Your task to perform on an android device: make emails show in primary in the gmail app Image 0: 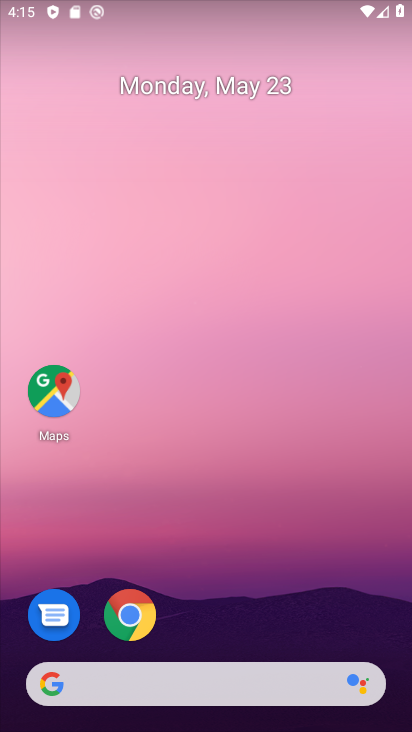
Step 0: drag from (318, 566) to (249, 92)
Your task to perform on an android device: make emails show in primary in the gmail app Image 1: 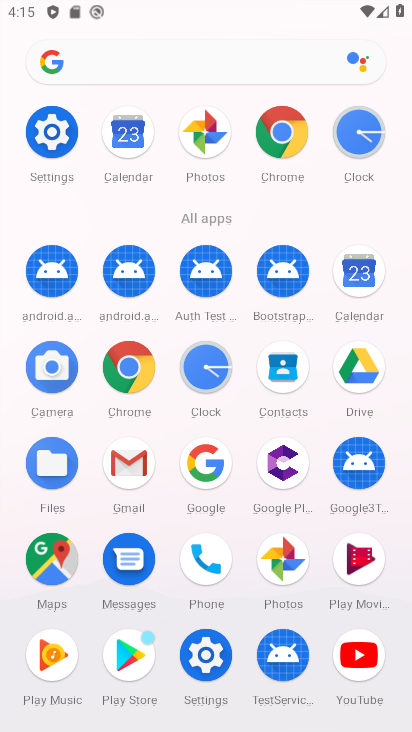
Step 1: click (139, 462)
Your task to perform on an android device: make emails show in primary in the gmail app Image 2: 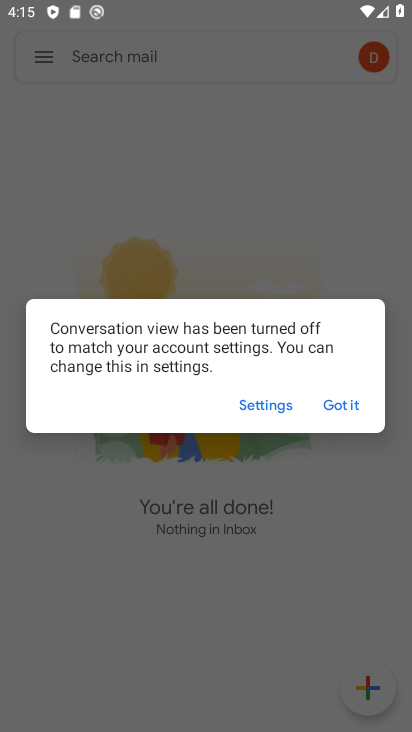
Step 2: click (349, 401)
Your task to perform on an android device: make emails show in primary in the gmail app Image 3: 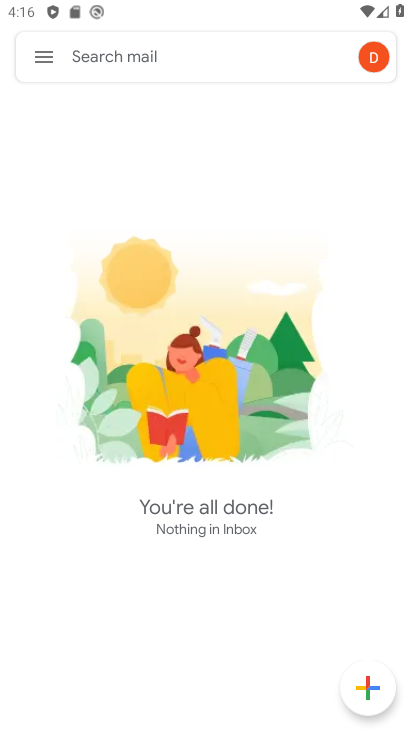
Step 3: click (44, 54)
Your task to perform on an android device: make emails show in primary in the gmail app Image 4: 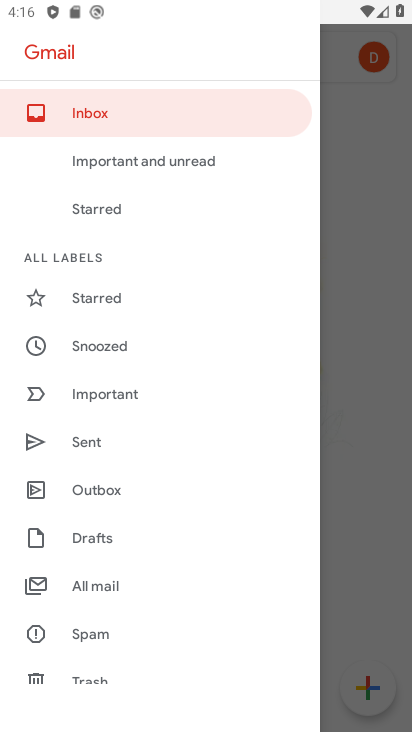
Step 4: drag from (98, 557) to (138, 217)
Your task to perform on an android device: make emails show in primary in the gmail app Image 5: 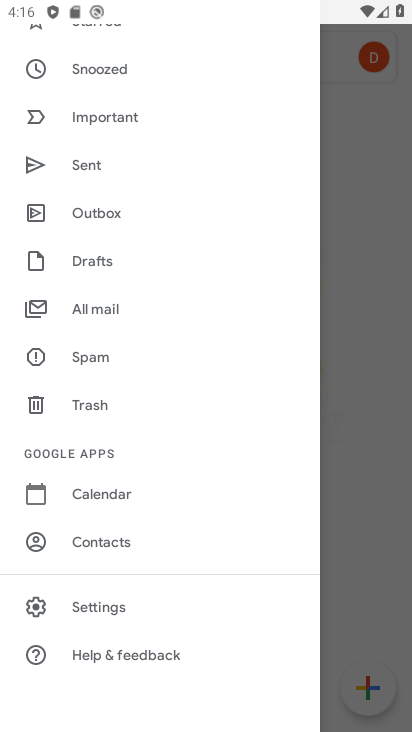
Step 5: click (101, 592)
Your task to perform on an android device: make emails show in primary in the gmail app Image 6: 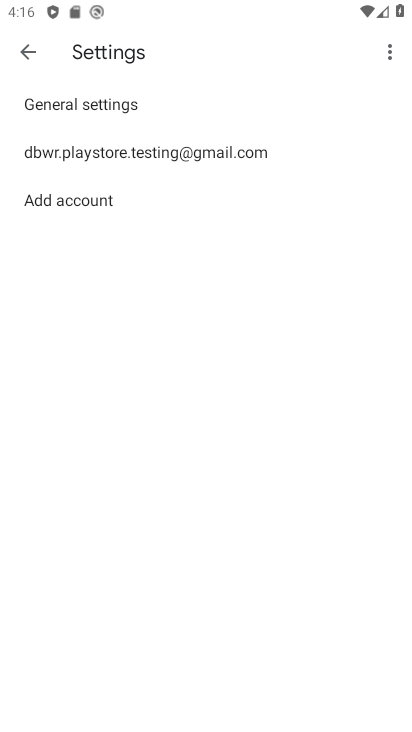
Step 6: click (212, 148)
Your task to perform on an android device: make emails show in primary in the gmail app Image 7: 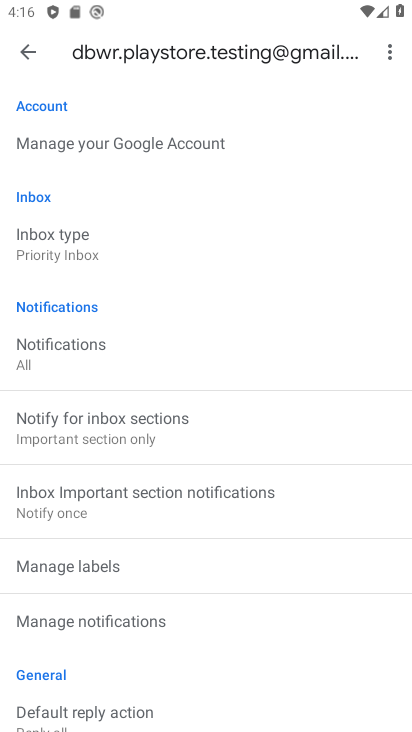
Step 7: click (59, 239)
Your task to perform on an android device: make emails show in primary in the gmail app Image 8: 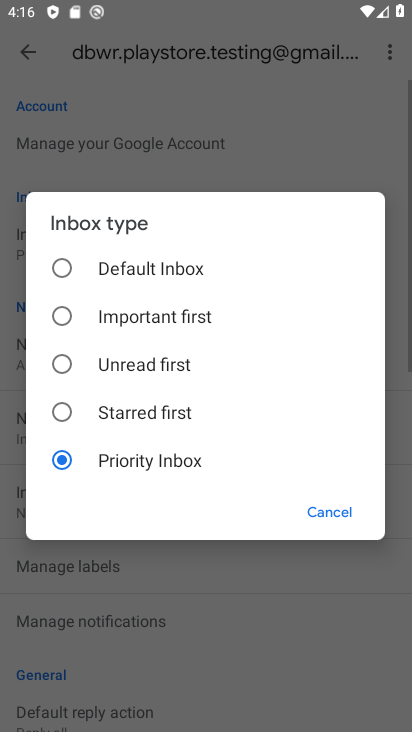
Step 8: click (59, 257)
Your task to perform on an android device: make emails show in primary in the gmail app Image 9: 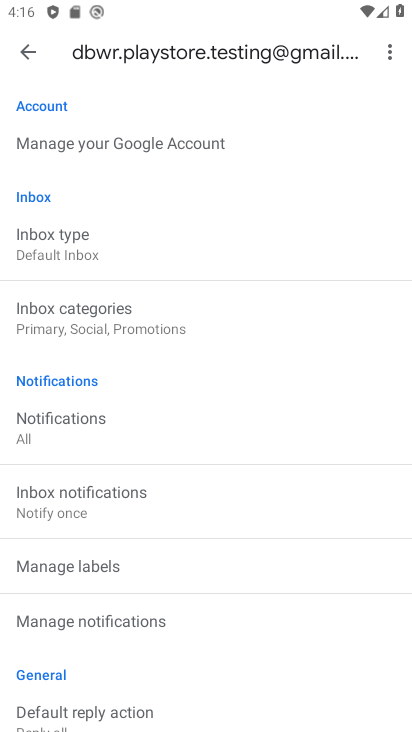
Step 9: click (103, 329)
Your task to perform on an android device: make emails show in primary in the gmail app Image 10: 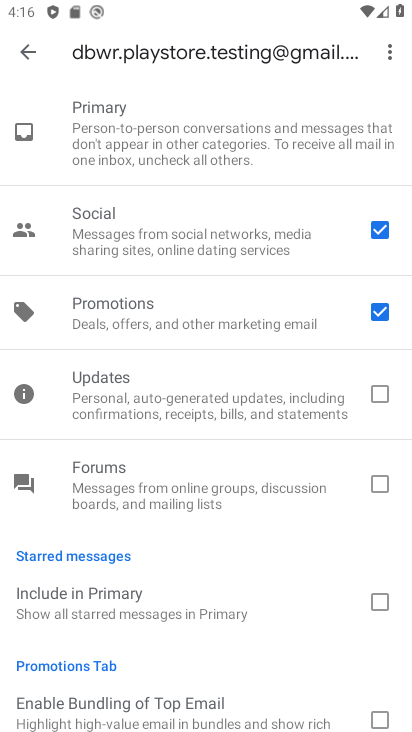
Step 10: click (372, 307)
Your task to perform on an android device: make emails show in primary in the gmail app Image 11: 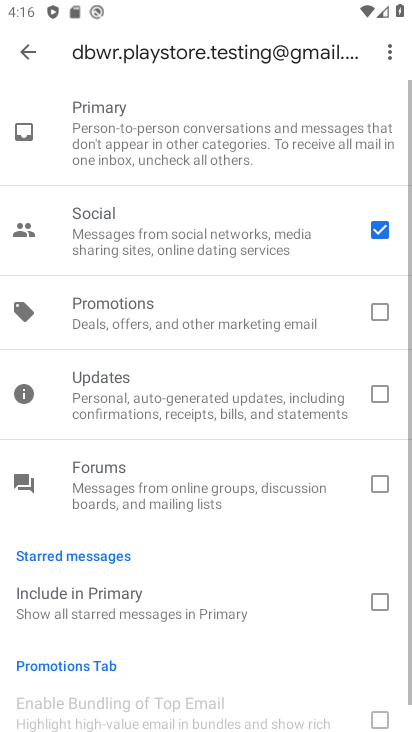
Step 11: click (375, 227)
Your task to perform on an android device: make emails show in primary in the gmail app Image 12: 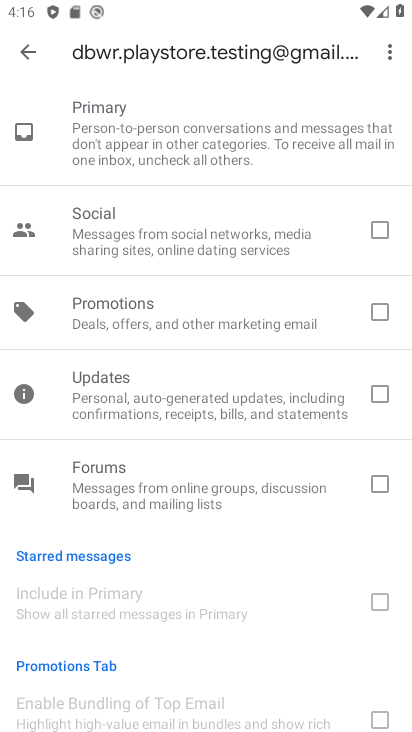
Step 12: click (27, 47)
Your task to perform on an android device: make emails show in primary in the gmail app Image 13: 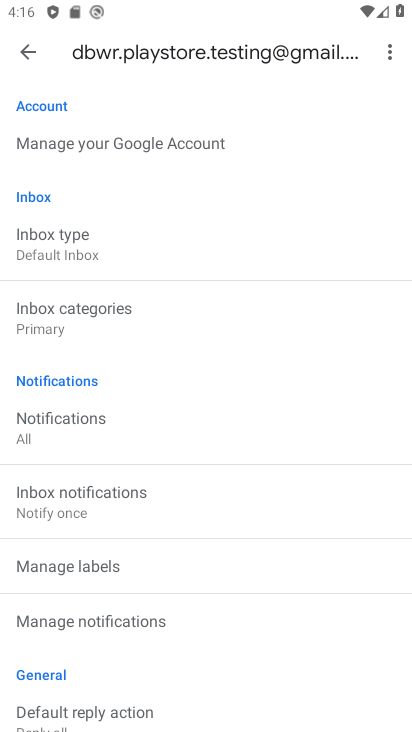
Step 13: task complete